Your task to perform on an android device: turn pop-ups on in chrome Image 0: 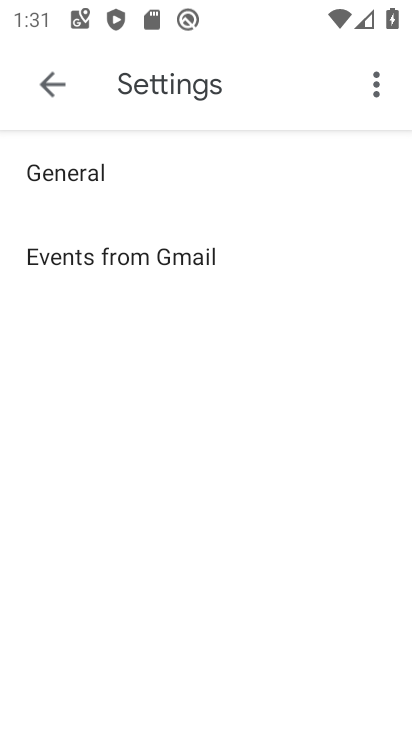
Step 0: press home button
Your task to perform on an android device: turn pop-ups on in chrome Image 1: 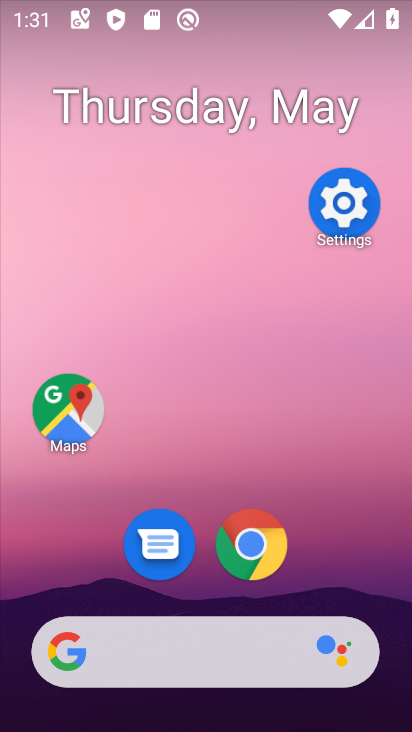
Step 1: click (256, 556)
Your task to perform on an android device: turn pop-ups on in chrome Image 2: 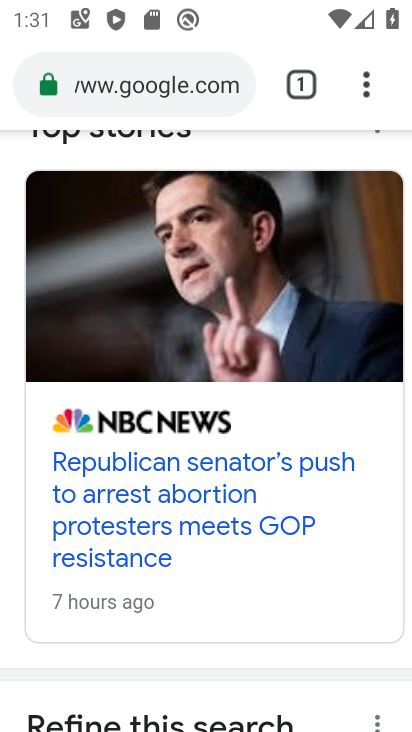
Step 2: drag from (363, 89) to (134, 601)
Your task to perform on an android device: turn pop-ups on in chrome Image 3: 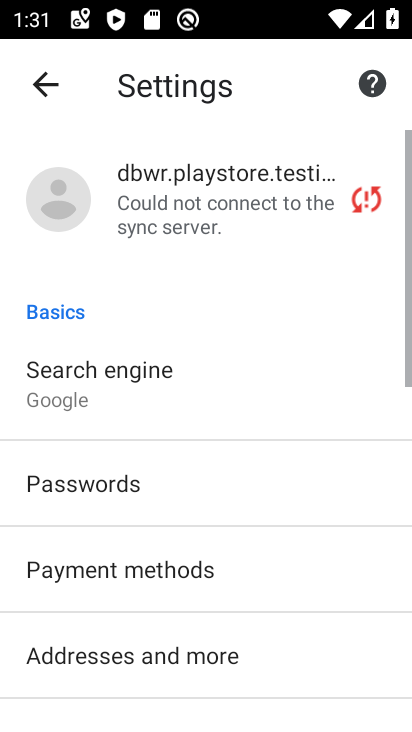
Step 3: drag from (144, 681) to (167, 244)
Your task to perform on an android device: turn pop-ups on in chrome Image 4: 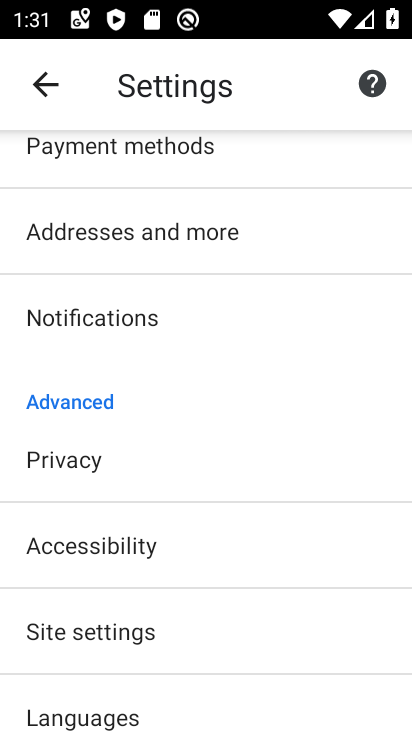
Step 4: drag from (191, 662) to (239, 296)
Your task to perform on an android device: turn pop-ups on in chrome Image 5: 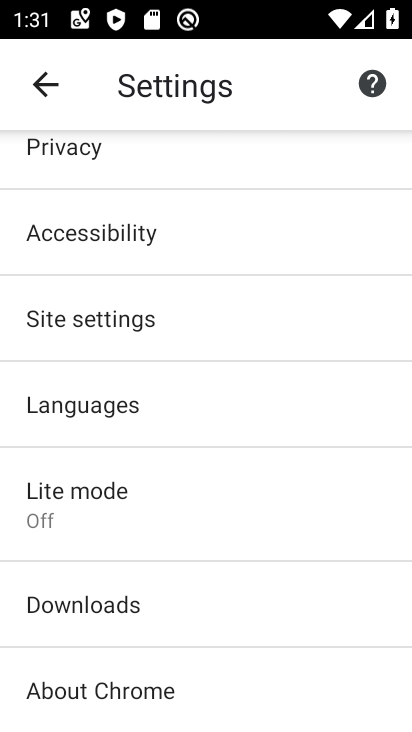
Step 5: click (98, 330)
Your task to perform on an android device: turn pop-ups on in chrome Image 6: 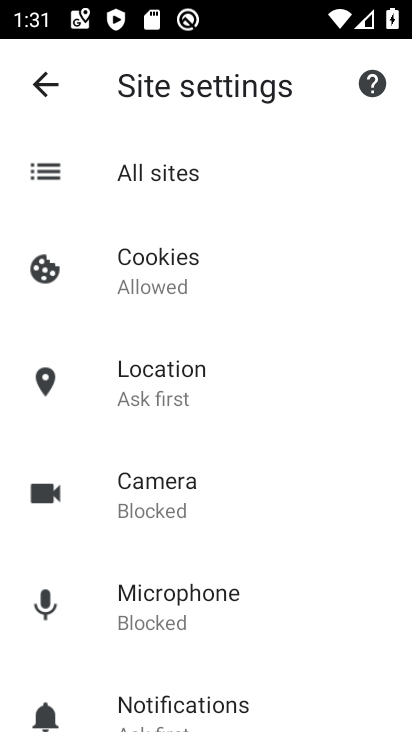
Step 6: drag from (205, 712) to (230, 249)
Your task to perform on an android device: turn pop-ups on in chrome Image 7: 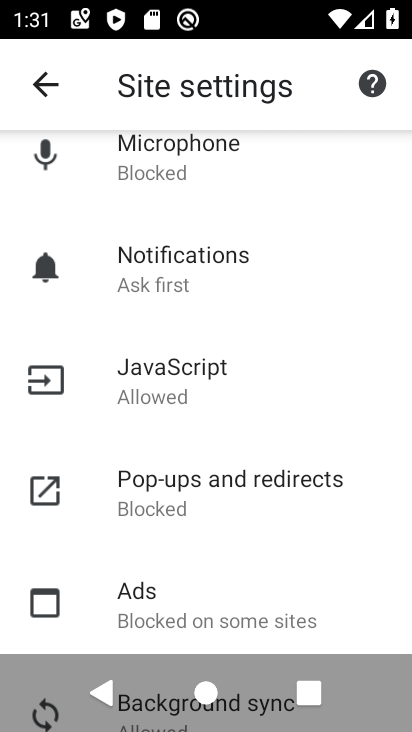
Step 7: click (192, 487)
Your task to perform on an android device: turn pop-ups on in chrome Image 8: 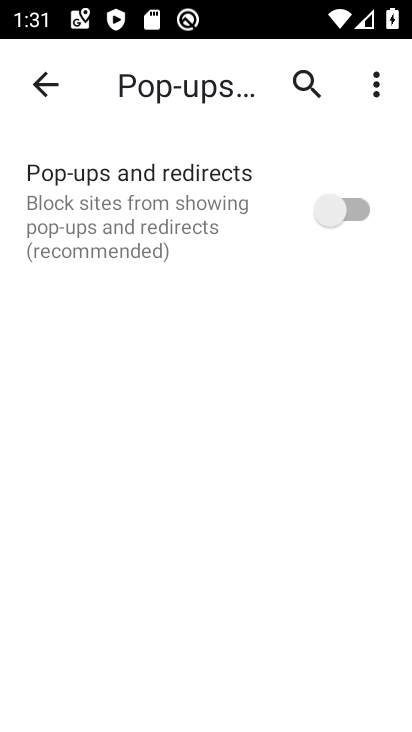
Step 8: click (328, 202)
Your task to perform on an android device: turn pop-ups on in chrome Image 9: 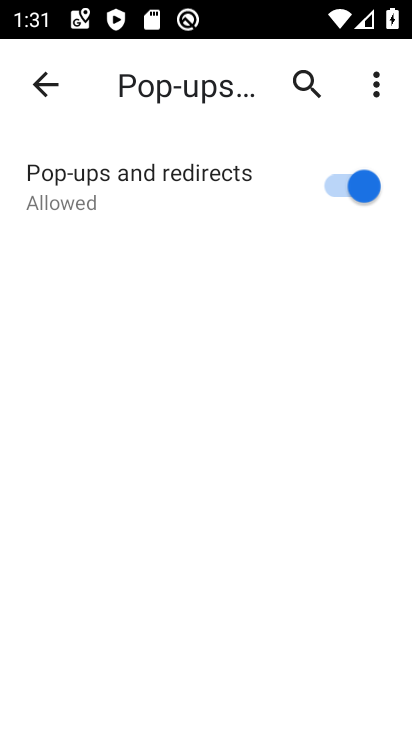
Step 9: task complete